Your task to perform on an android device: change alarm snooze length Image 0: 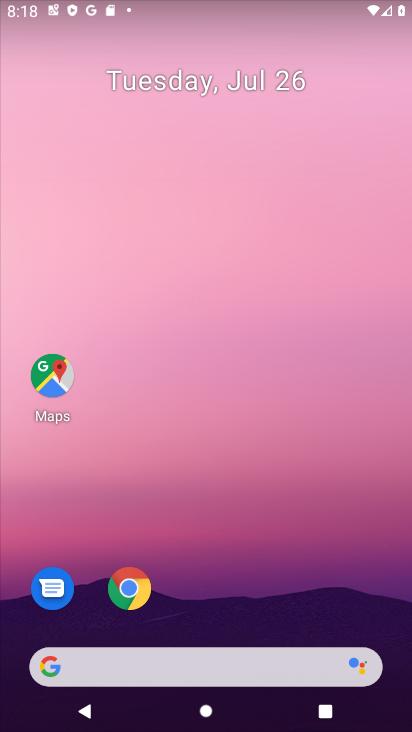
Step 0: press home button
Your task to perform on an android device: change alarm snooze length Image 1: 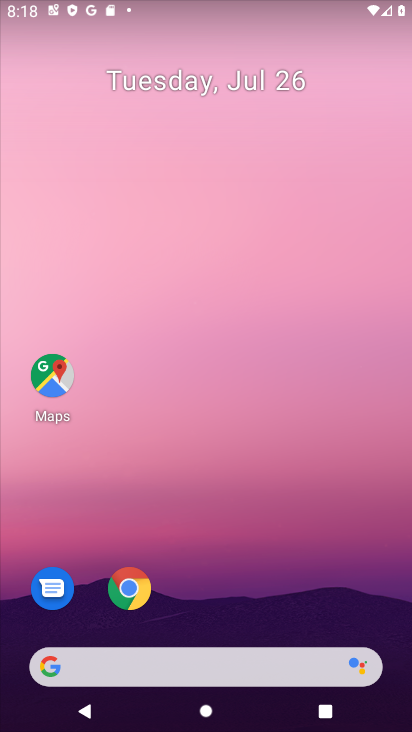
Step 1: drag from (276, 599) to (246, 48)
Your task to perform on an android device: change alarm snooze length Image 2: 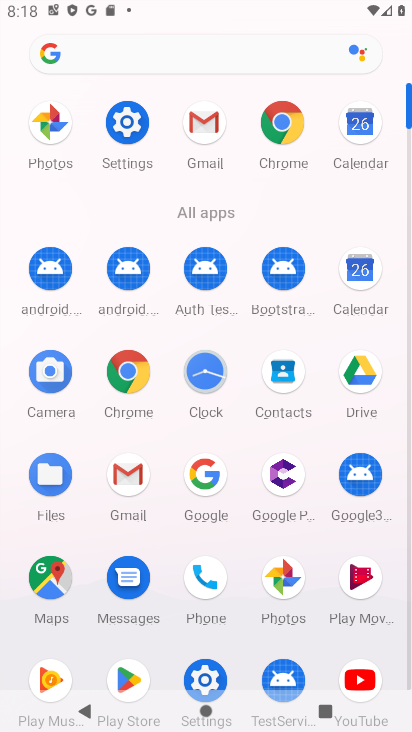
Step 2: click (212, 381)
Your task to perform on an android device: change alarm snooze length Image 3: 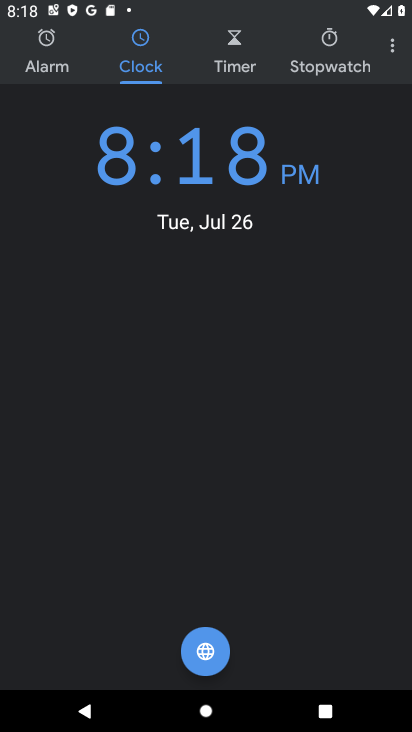
Step 3: click (388, 52)
Your task to perform on an android device: change alarm snooze length Image 4: 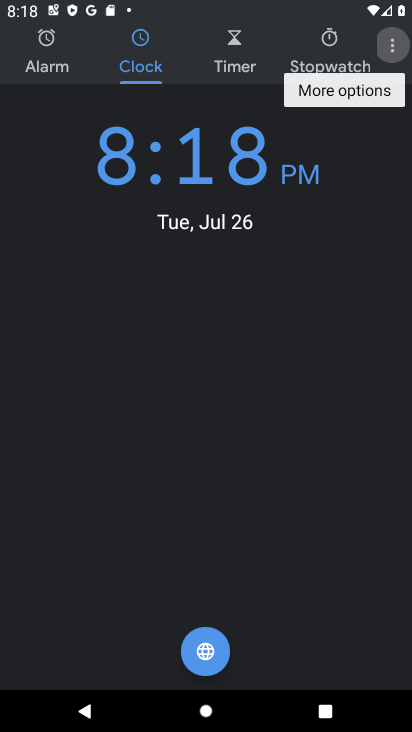
Step 4: click (388, 52)
Your task to perform on an android device: change alarm snooze length Image 5: 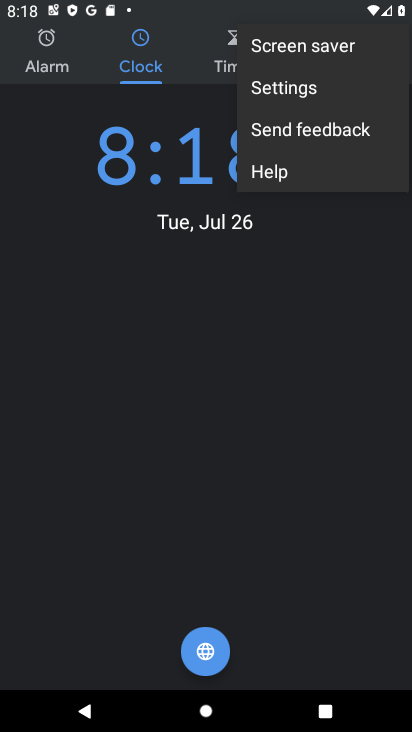
Step 5: click (289, 91)
Your task to perform on an android device: change alarm snooze length Image 6: 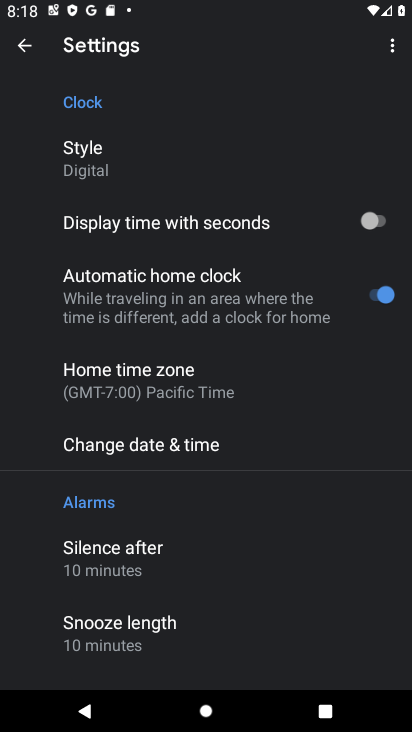
Step 6: click (96, 624)
Your task to perform on an android device: change alarm snooze length Image 7: 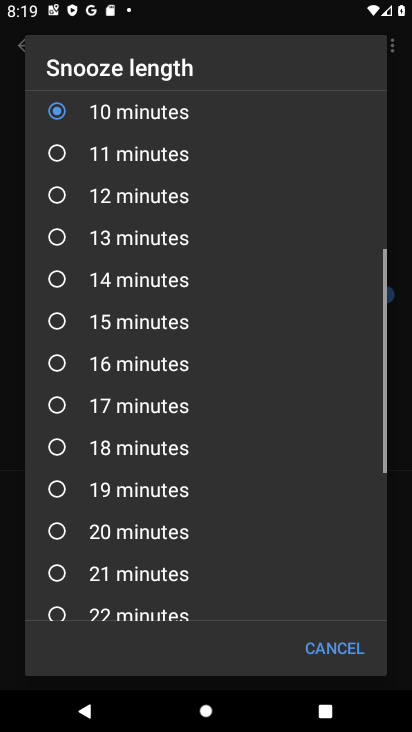
Step 7: click (64, 491)
Your task to perform on an android device: change alarm snooze length Image 8: 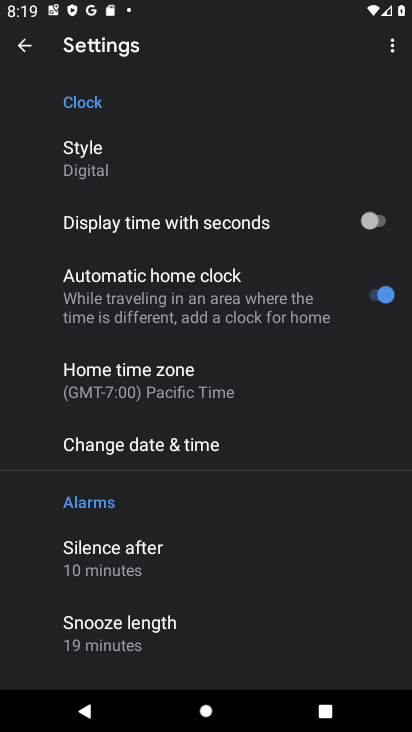
Step 8: task complete